Your task to perform on an android device: find which apps use the phone's location Image 0: 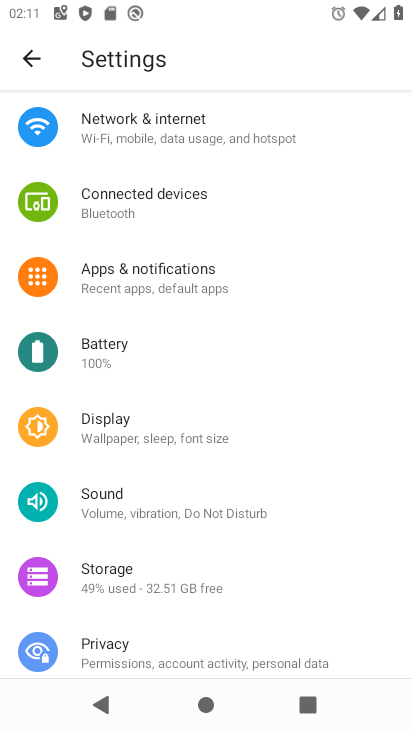
Step 0: drag from (229, 553) to (248, 179)
Your task to perform on an android device: find which apps use the phone's location Image 1: 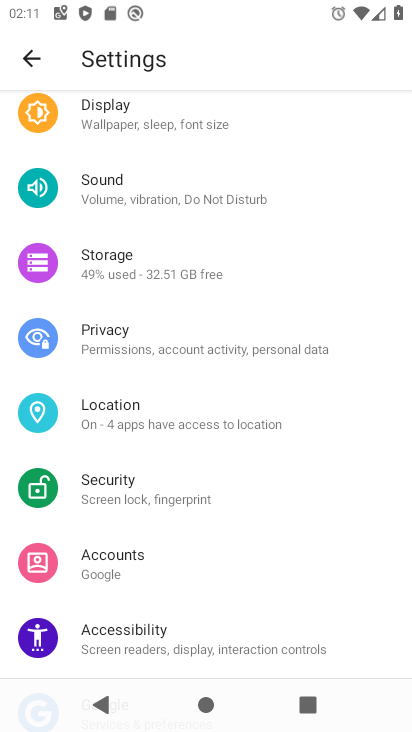
Step 1: click (190, 406)
Your task to perform on an android device: find which apps use the phone's location Image 2: 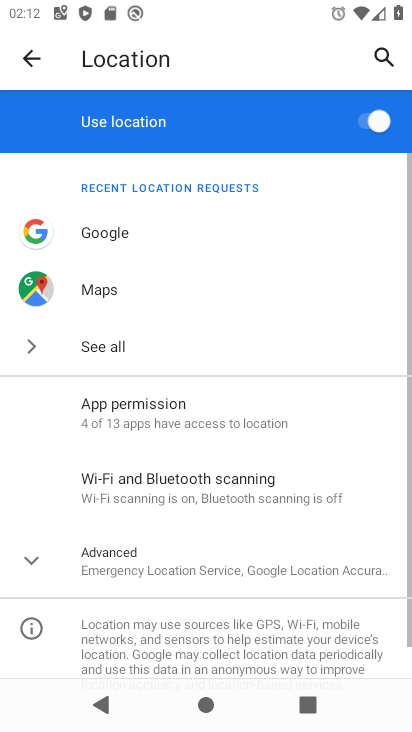
Step 2: task complete